Your task to perform on an android device: Search for hotels in Philadelphia Image 0: 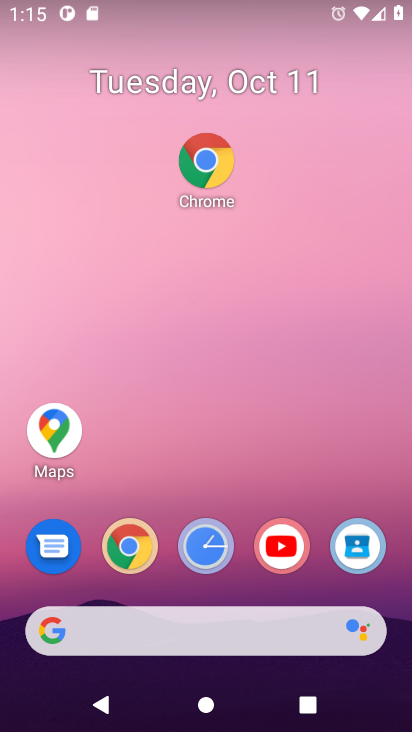
Step 0: click (133, 546)
Your task to perform on an android device: Search for hotels in Philadelphia Image 1: 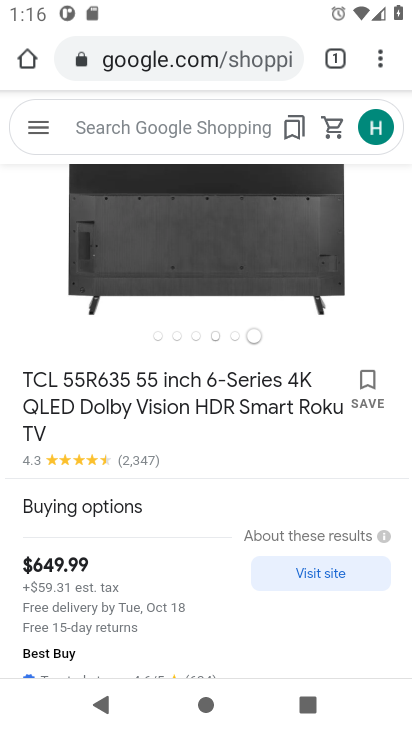
Step 1: click (222, 67)
Your task to perform on an android device: Search for hotels in Philadelphia Image 2: 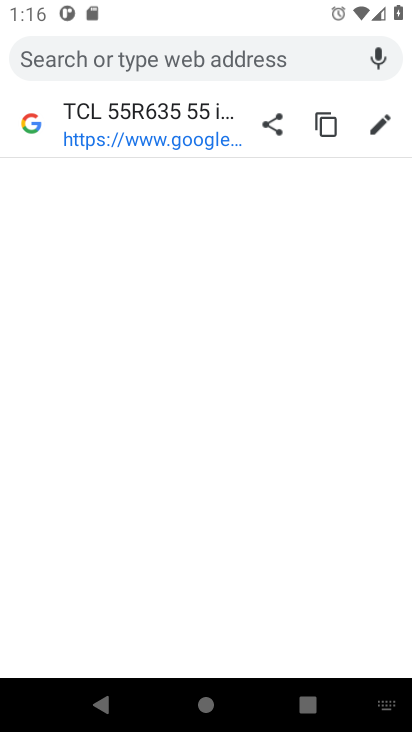
Step 2: type "hotels in Philadelphia"
Your task to perform on an android device: Search for hotels in Philadelphia Image 3: 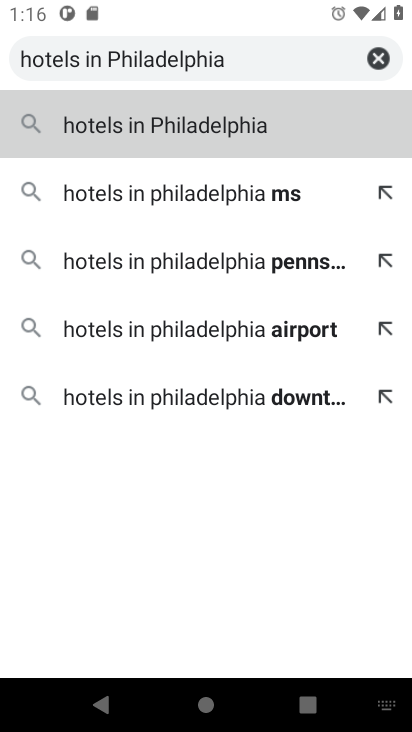
Step 3: press enter
Your task to perform on an android device: Search for hotels in Philadelphia Image 4: 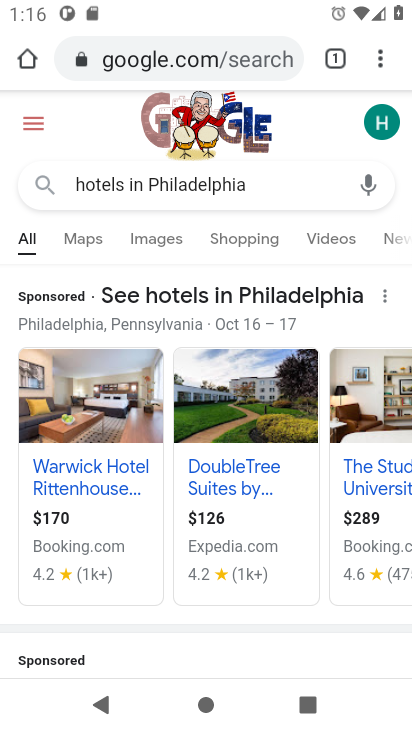
Step 4: drag from (254, 596) to (222, 203)
Your task to perform on an android device: Search for hotels in Philadelphia Image 5: 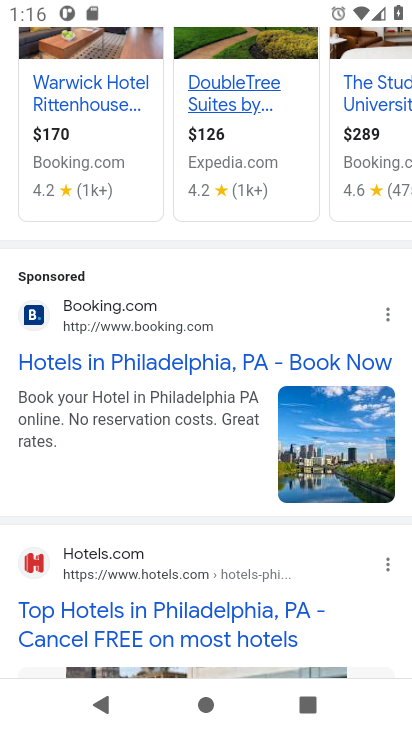
Step 5: click (190, 360)
Your task to perform on an android device: Search for hotels in Philadelphia Image 6: 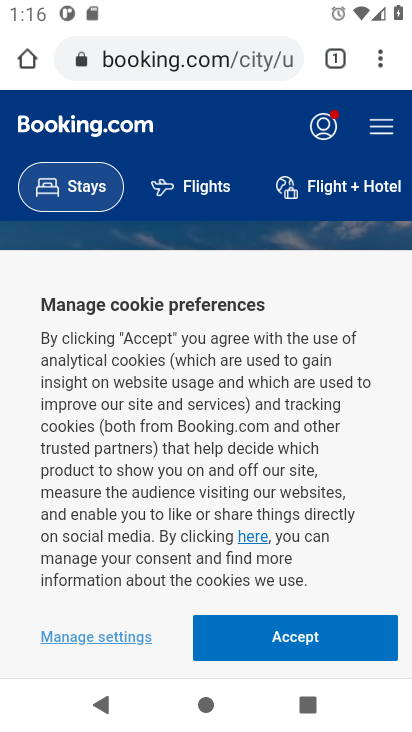
Step 6: drag from (240, 400) to (233, 284)
Your task to perform on an android device: Search for hotels in Philadelphia Image 7: 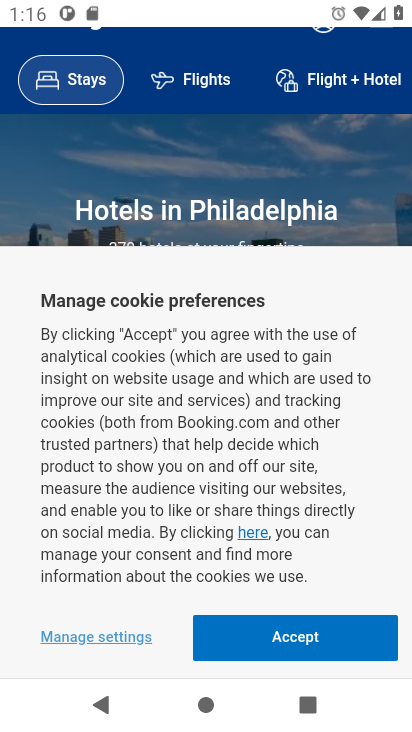
Step 7: click (321, 644)
Your task to perform on an android device: Search for hotels in Philadelphia Image 8: 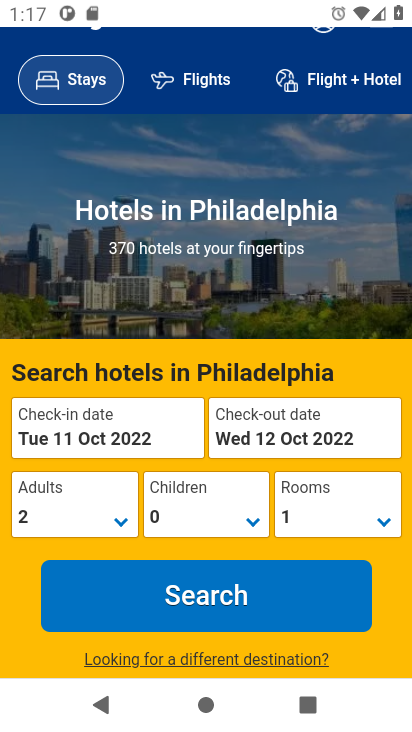
Step 8: task complete